Your task to perform on an android device: change the clock display to show seconds Image 0: 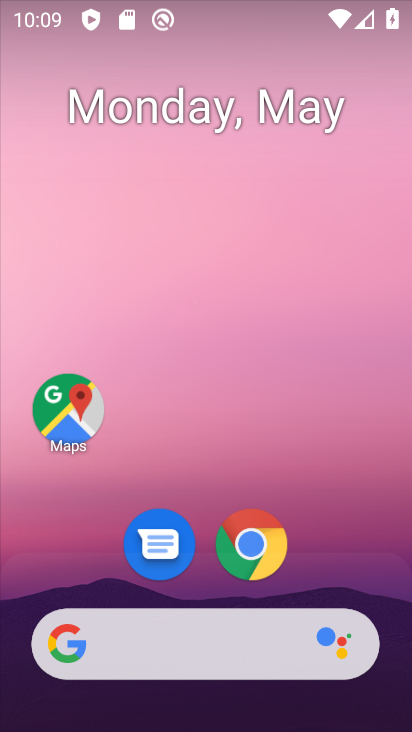
Step 0: drag from (110, 624) to (124, 93)
Your task to perform on an android device: change the clock display to show seconds Image 1: 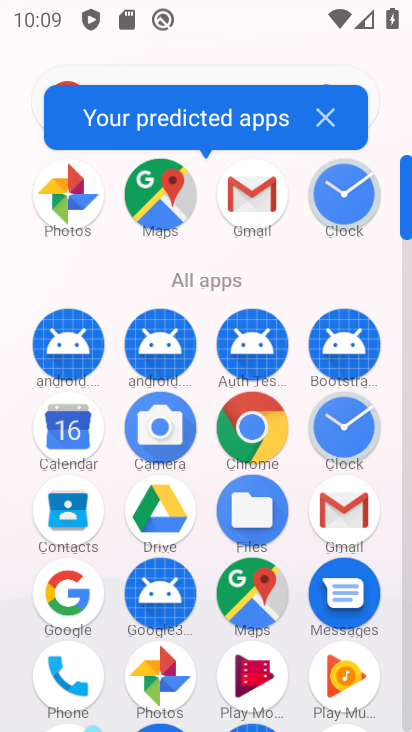
Step 1: click (356, 422)
Your task to perform on an android device: change the clock display to show seconds Image 2: 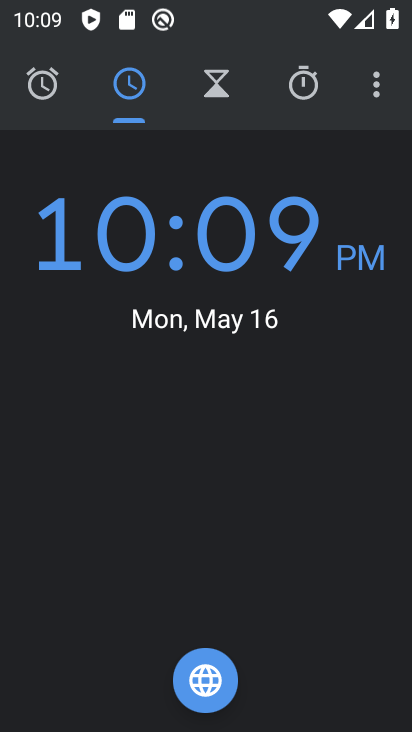
Step 2: click (376, 78)
Your task to perform on an android device: change the clock display to show seconds Image 3: 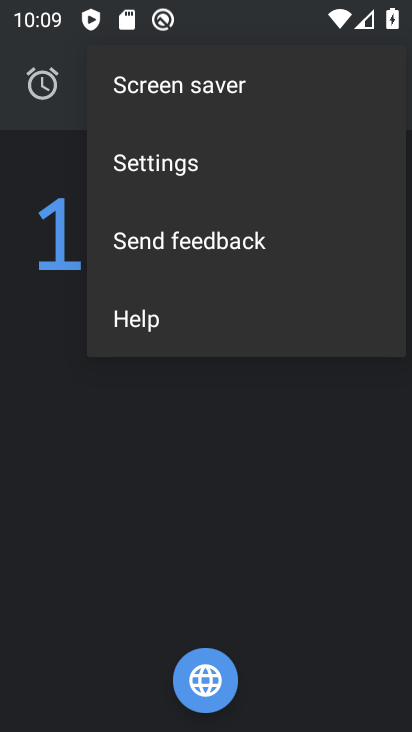
Step 3: click (308, 179)
Your task to perform on an android device: change the clock display to show seconds Image 4: 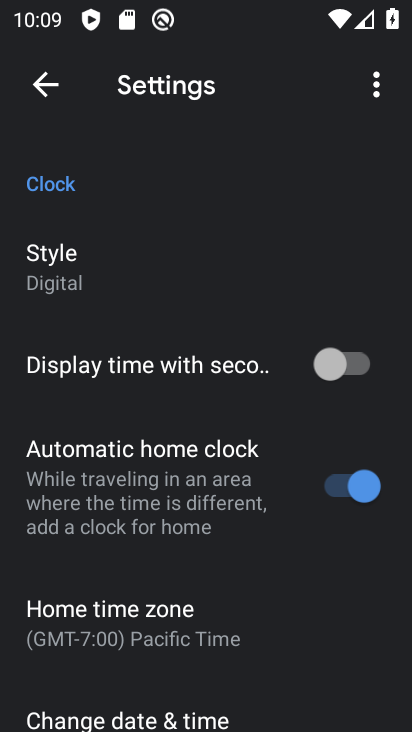
Step 4: click (356, 362)
Your task to perform on an android device: change the clock display to show seconds Image 5: 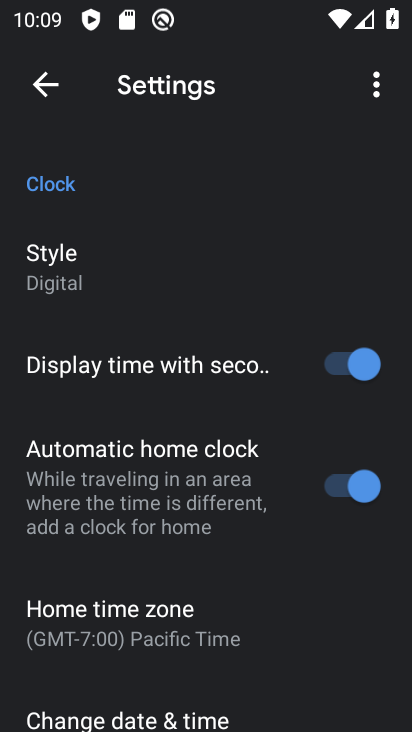
Step 5: task complete